Your task to perform on an android device: delete the emails in spam in the gmail app Image 0: 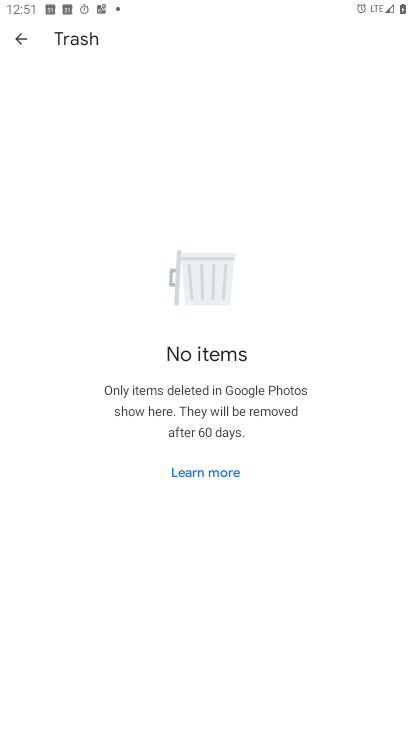
Step 0: press home button
Your task to perform on an android device: delete the emails in spam in the gmail app Image 1: 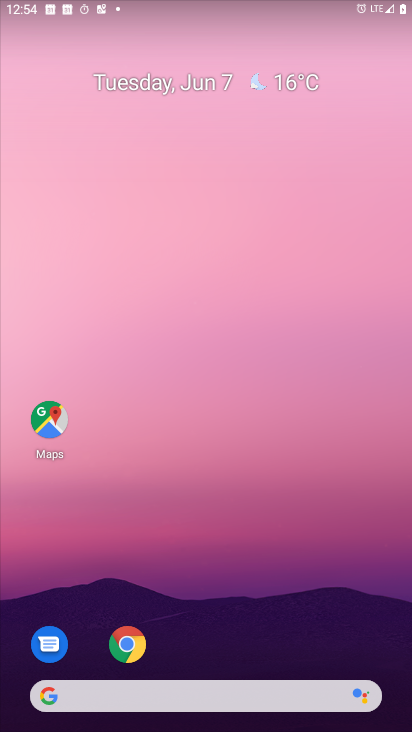
Step 1: drag from (79, 439) to (248, 79)
Your task to perform on an android device: delete the emails in spam in the gmail app Image 2: 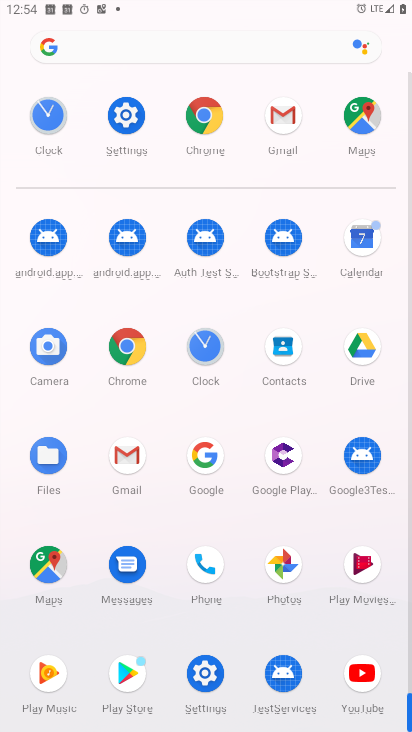
Step 2: click (281, 106)
Your task to perform on an android device: delete the emails in spam in the gmail app Image 3: 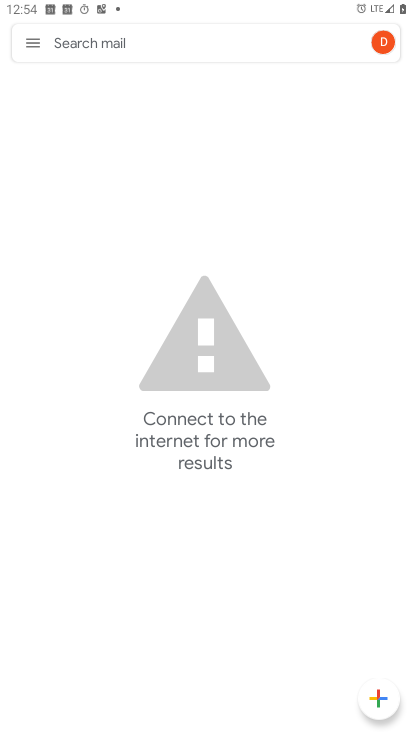
Step 3: click (36, 38)
Your task to perform on an android device: delete the emails in spam in the gmail app Image 4: 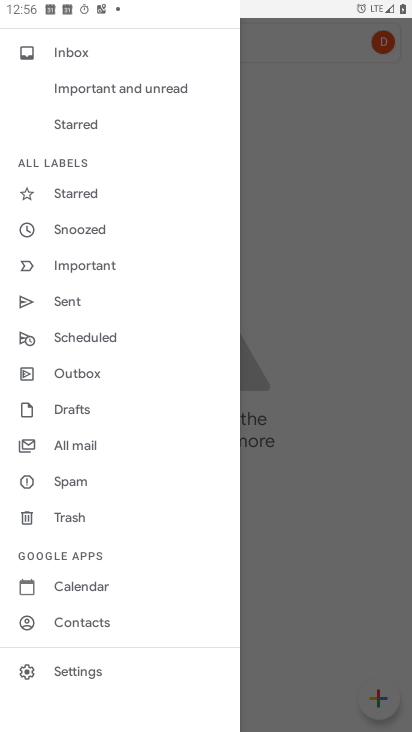
Step 4: click (93, 477)
Your task to perform on an android device: delete the emails in spam in the gmail app Image 5: 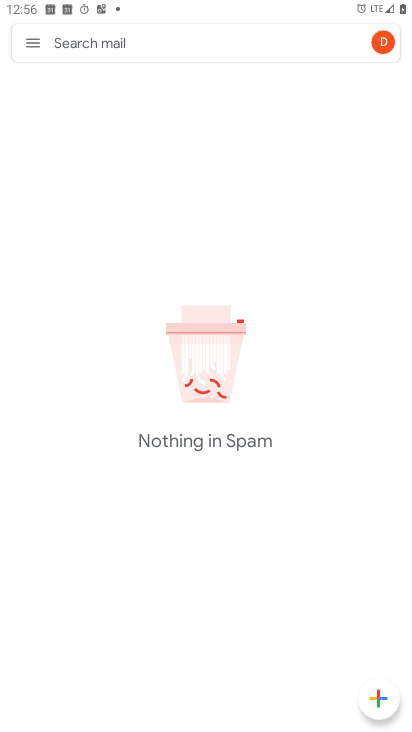
Step 5: task complete